Your task to perform on an android device: toggle translation in the chrome app Image 0: 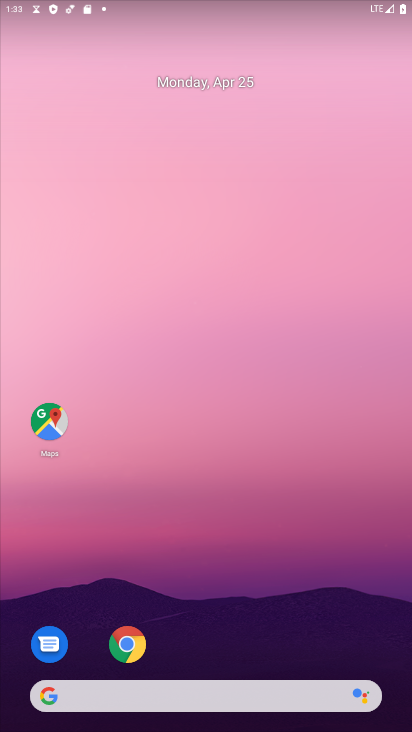
Step 0: click (126, 644)
Your task to perform on an android device: toggle translation in the chrome app Image 1: 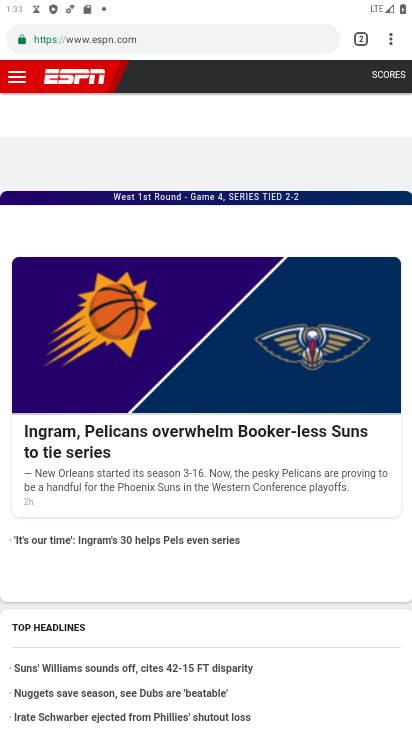
Step 1: drag from (393, 37) to (258, 511)
Your task to perform on an android device: toggle translation in the chrome app Image 2: 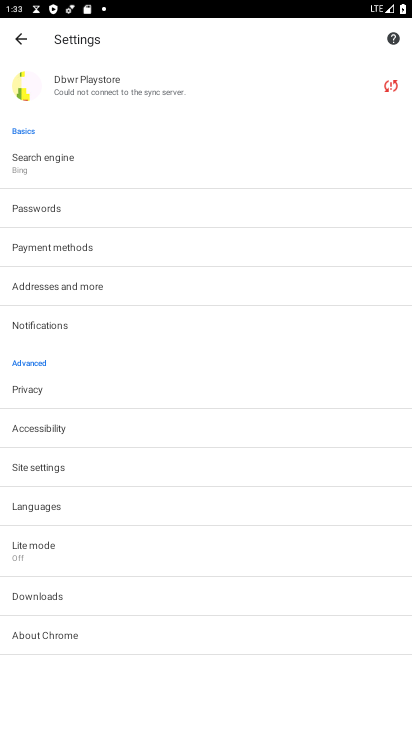
Step 2: click (42, 511)
Your task to perform on an android device: toggle translation in the chrome app Image 3: 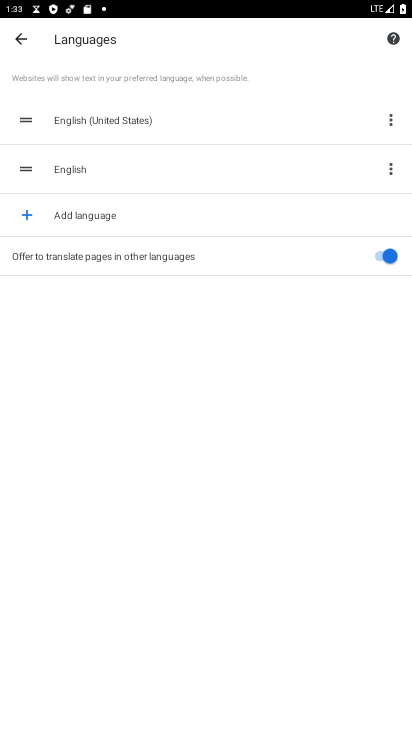
Step 3: click (396, 249)
Your task to perform on an android device: toggle translation in the chrome app Image 4: 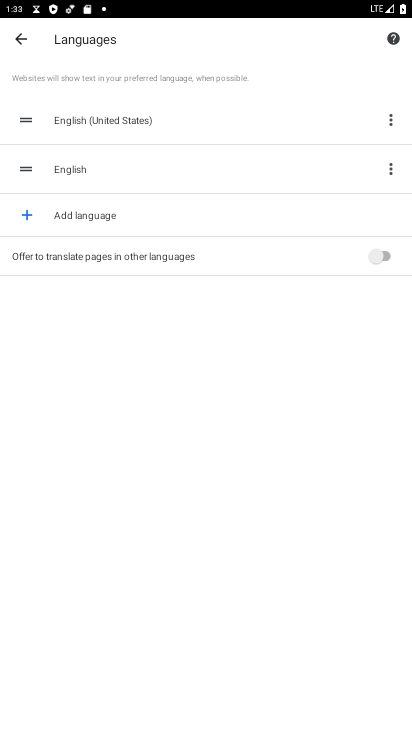
Step 4: task complete